Your task to perform on an android device: Open the stopwatch Image 0: 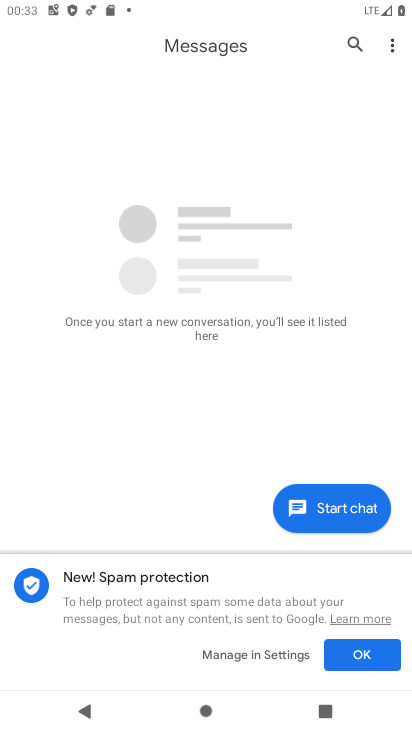
Step 0: press home button
Your task to perform on an android device: Open the stopwatch Image 1: 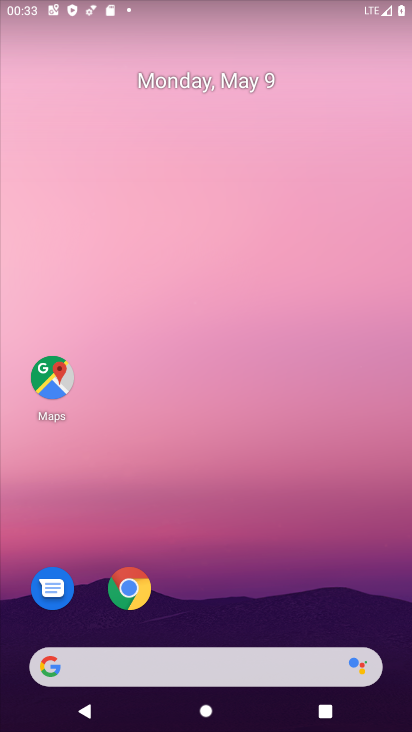
Step 1: drag from (242, 575) to (195, 3)
Your task to perform on an android device: Open the stopwatch Image 2: 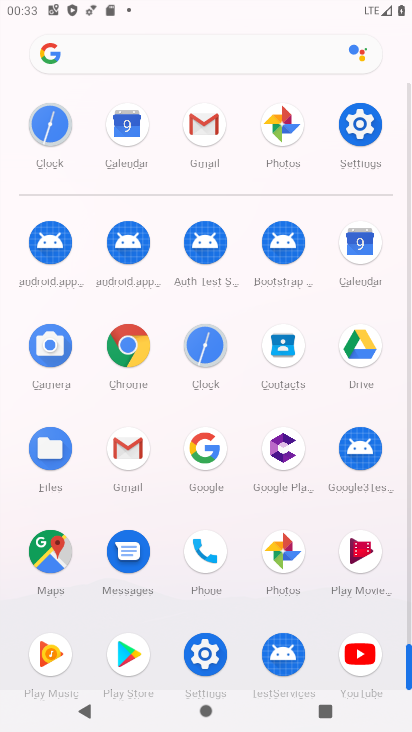
Step 2: click (207, 342)
Your task to perform on an android device: Open the stopwatch Image 3: 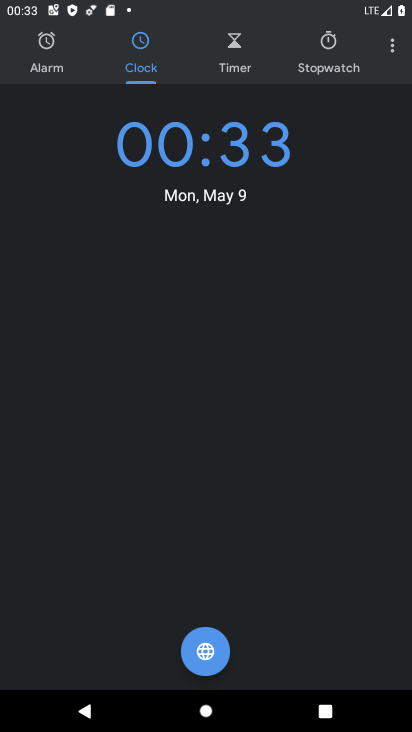
Step 3: click (327, 40)
Your task to perform on an android device: Open the stopwatch Image 4: 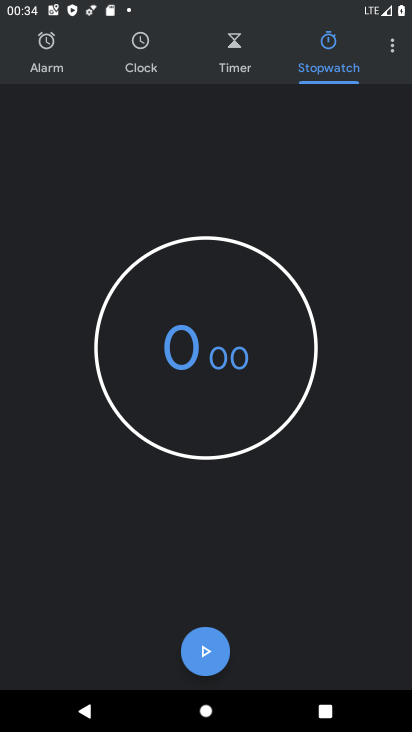
Step 4: task complete